Your task to perform on an android device: open app "LinkedIn" Image 0: 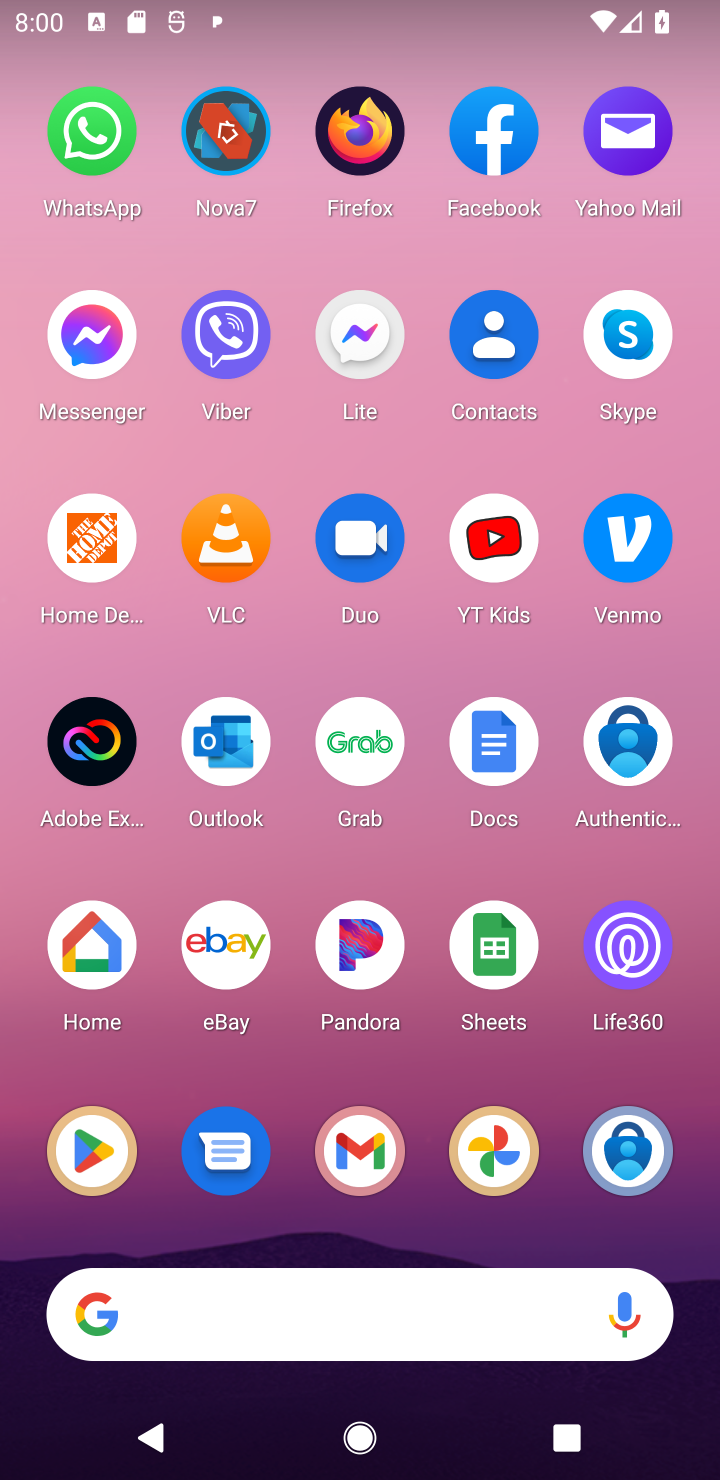
Step 0: click (90, 1163)
Your task to perform on an android device: open app "LinkedIn" Image 1: 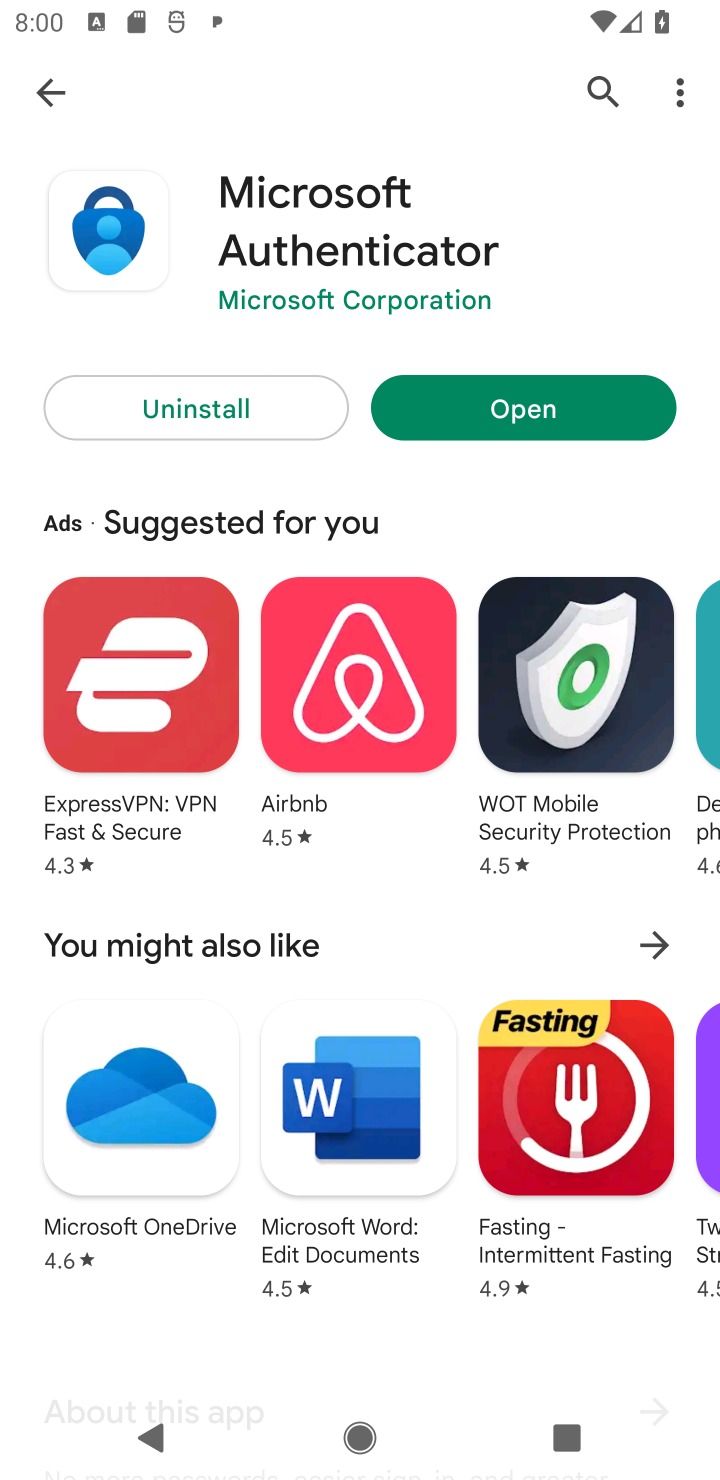
Step 1: click (608, 90)
Your task to perform on an android device: open app "LinkedIn" Image 2: 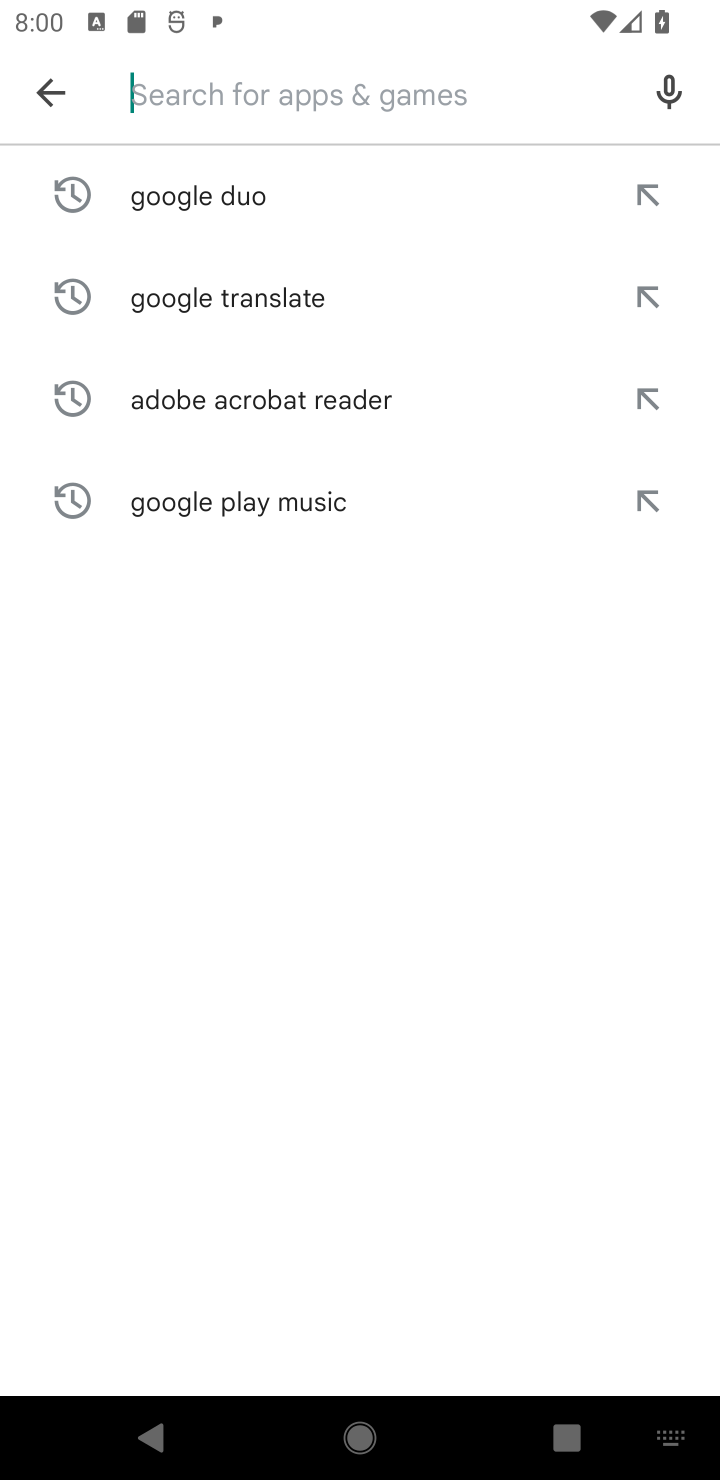
Step 2: type "LinkedIn"
Your task to perform on an android device: open app "LinkedIn" Image 3: 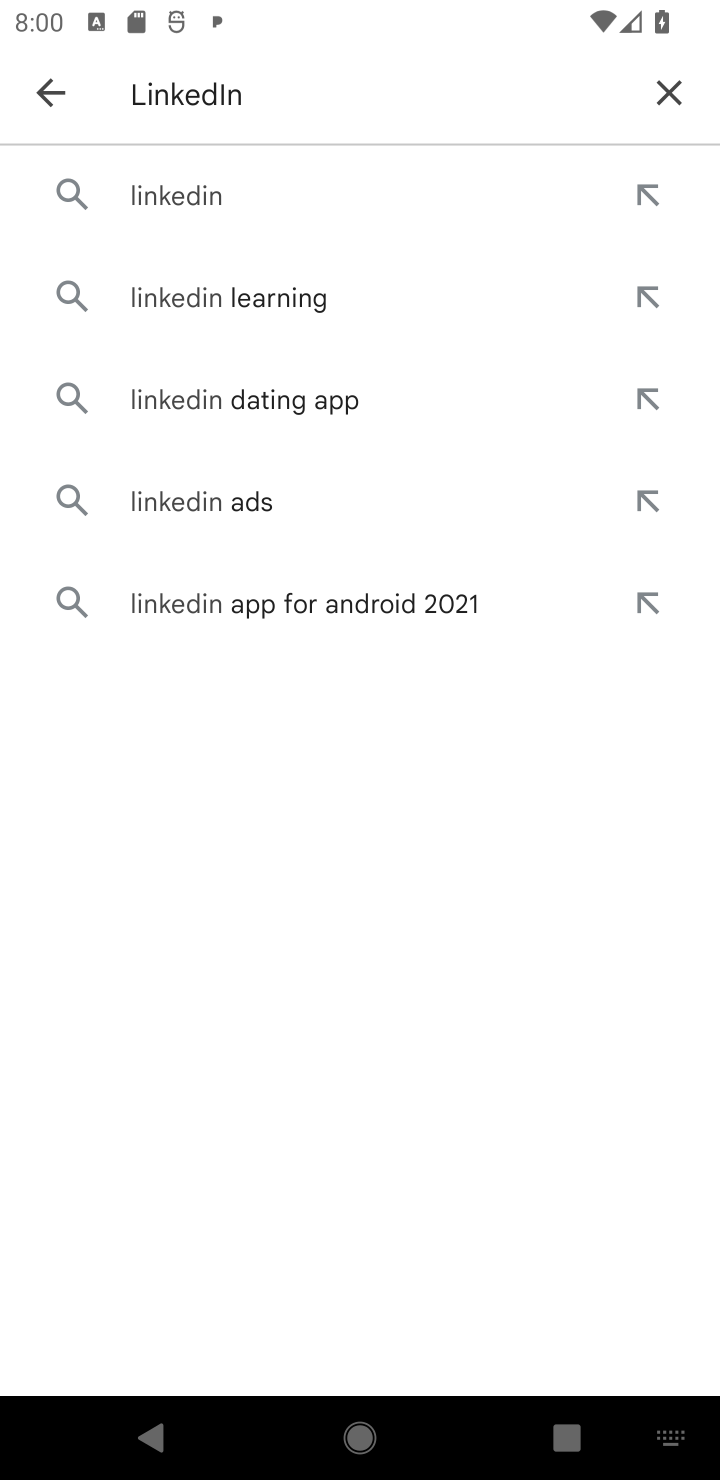
Step 3: click (167, 203)
Your task to perform on an android device: open app "LinkedIn" Image 4: 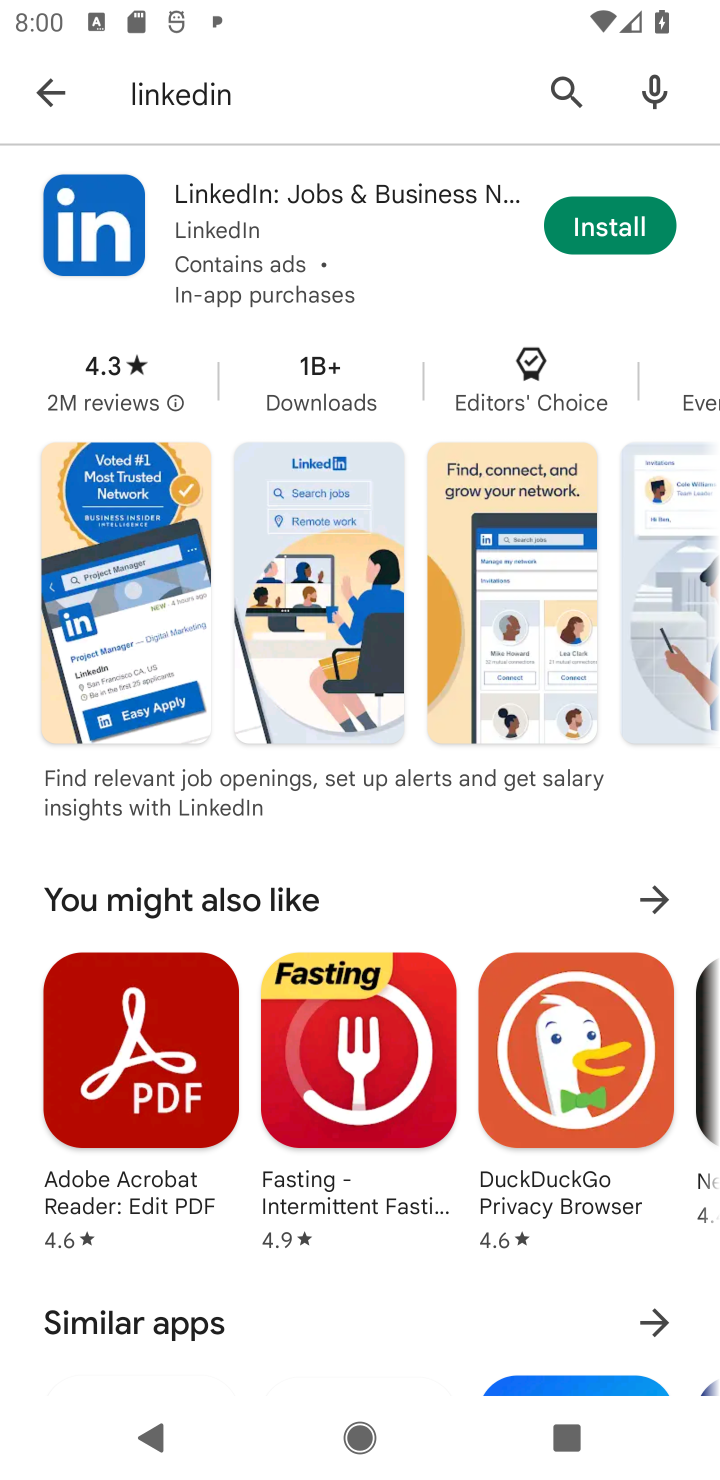
Step 4: task complete